Your task to perform on an android device: Search for sushi restaurants on Maps Image 0: 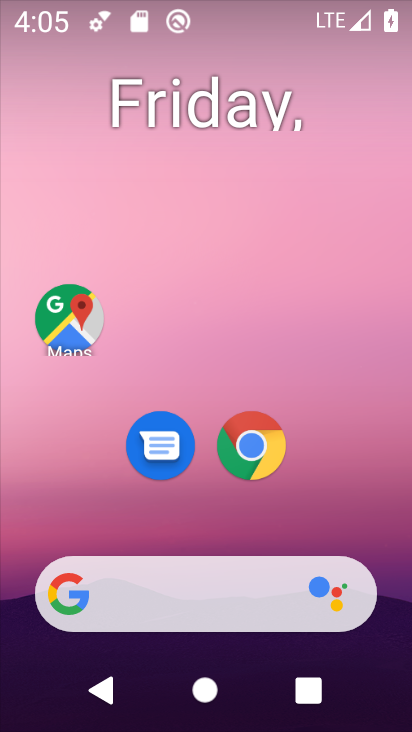
Step 0: click (49, 320)
Your task to perform on an android device: Search for sushi restaurants on Maps Image 1: 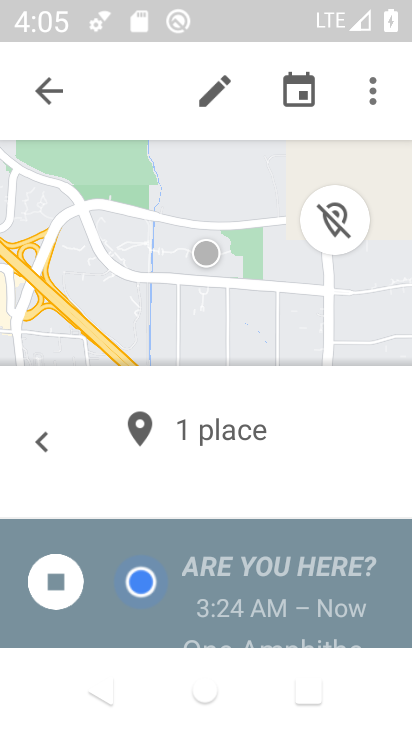
Step 1: click (40, 87)
Your task to perform on an android device: Search for sushi restaurants on Maps Image 2: 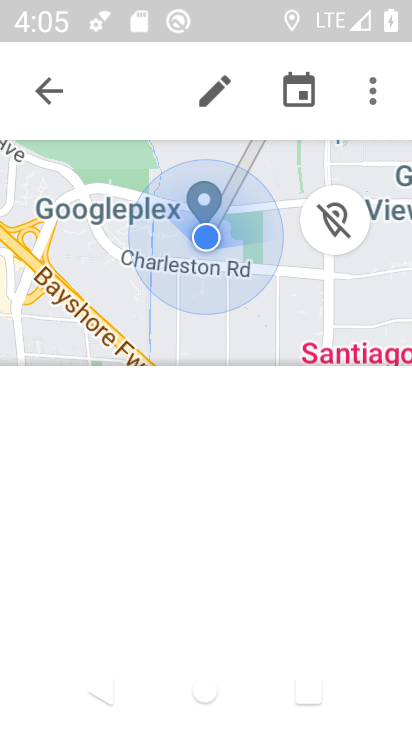
Step 2: click (40, 87)
Your task to perform on an android device: Search for sushi restaurants on Maps Image 3: 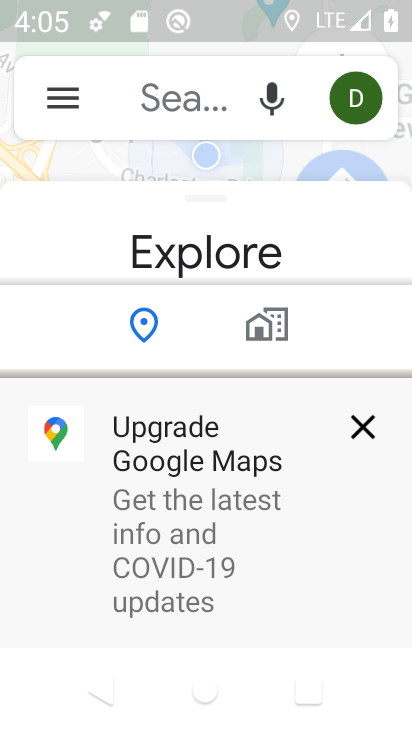
Step 3: click (362, 426)
Your task to perform on an android device: Search for sushi restaurants on Maps Image 4: 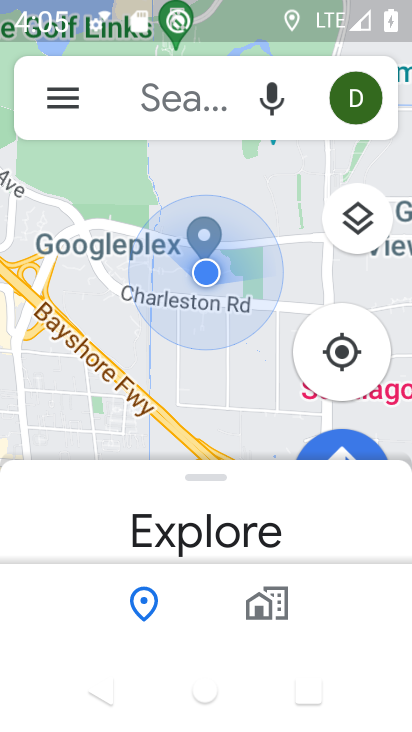
Step 4: click (205, 96)
Your task to perform on an android device: Search for sushi restaurants on Maps Image 5: 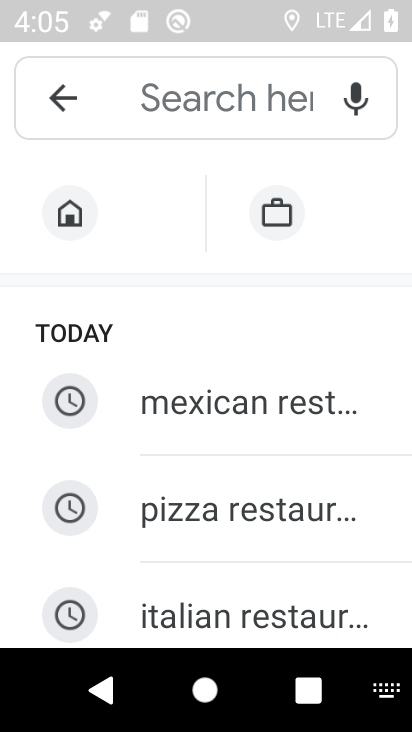
Step 5: drag from (313, 584) to (300, 212)
Your task to perform on an android device: Search for sushi restaurants on Maps Image 6: 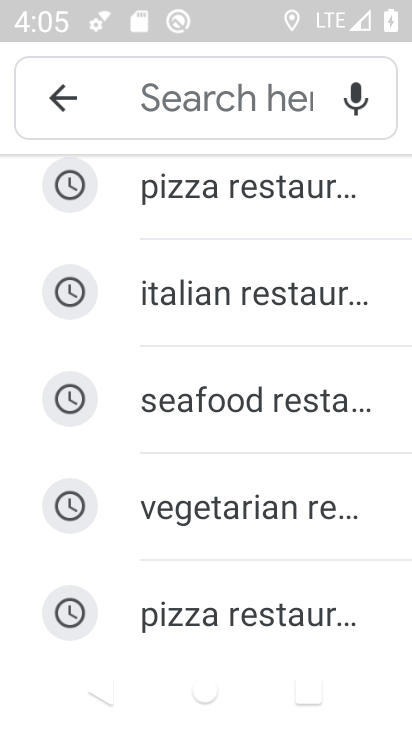
Step 6: drag from (292, 571) to (236, 659)
Your task to perform on an android device: Search for sushi restaurants on Maps Image 7: 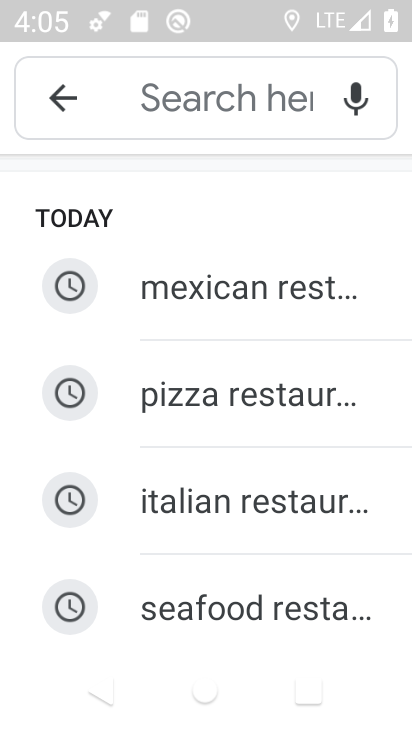
Step 7: click (223, 106)
Your task to perform on an android device: Search for sushi restaurants on Maps Image 8: 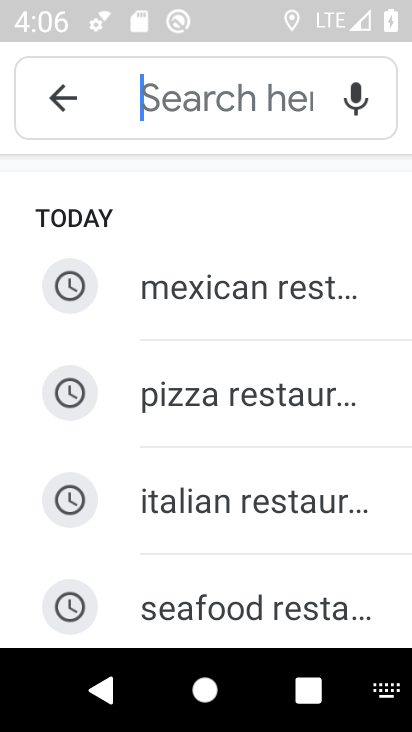
Step 8: type "sushi restaurants"
Your task to perform on an android device: Search for sushi restaurants on Maps Image 9: 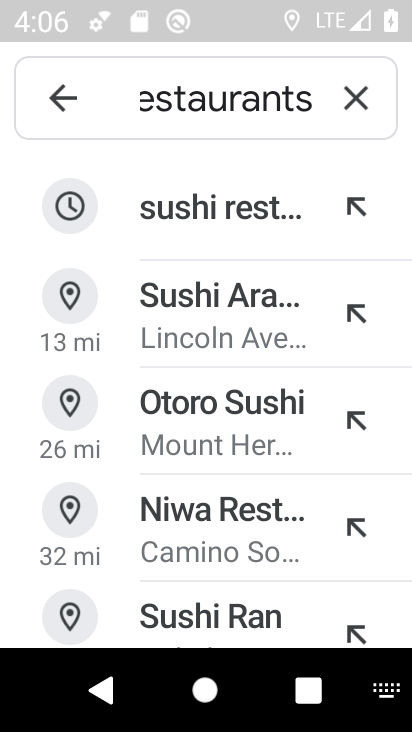
Step 9: click (245, 203)
Your task to perform on an android device: Search for sushi restaurants on Maps Image 10: 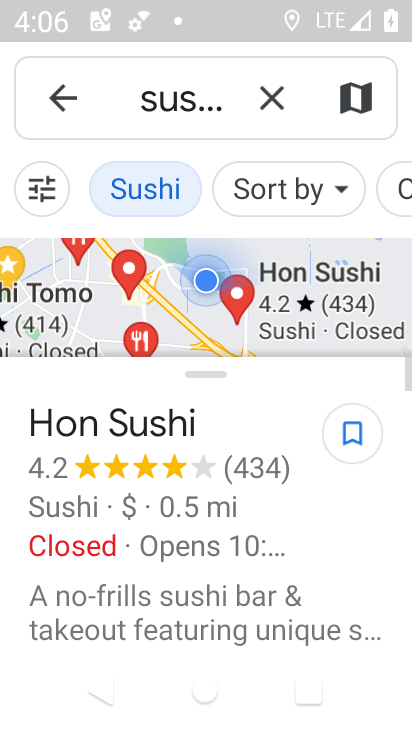
Step 10: task complete